Your task to perform on an android device: stop showing notifications on the lock screen Image 0: 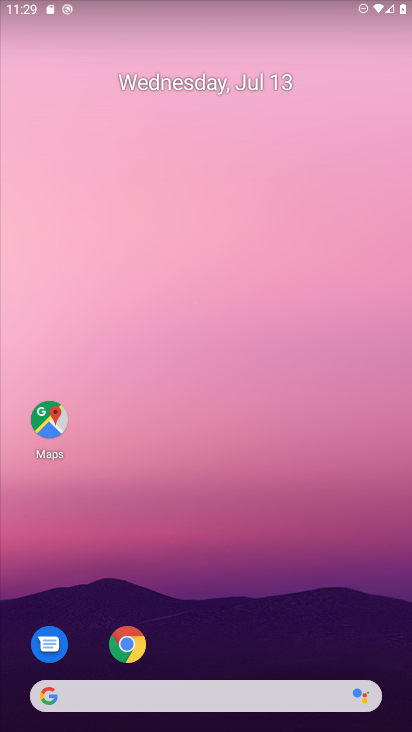
Step 0: drag from (215, 540) to (367, 79)
Your task to perform on an android device: stop showing notifications on the lock screen Image 1: 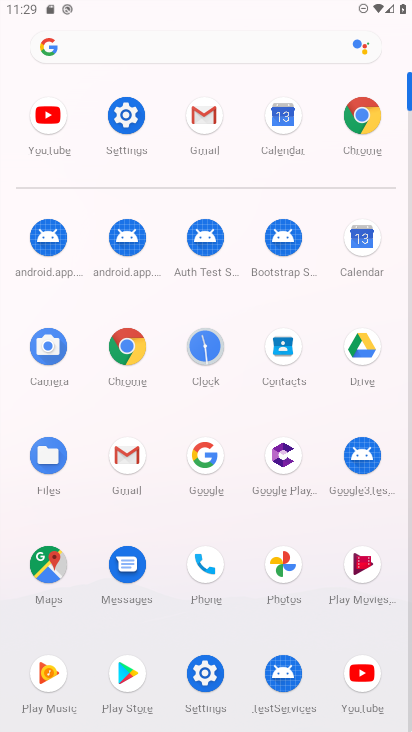
Step 1: click (119, 118)
Your task to perform on an android device: stop showing notifications on the lock screen Image 2: 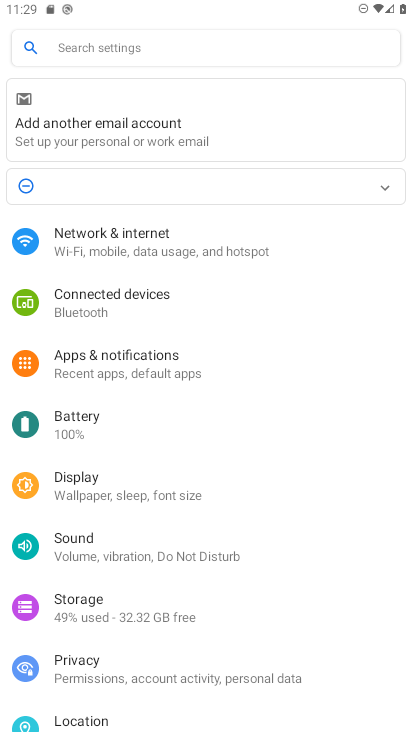
Step 2: click (121, 349)
Your task to perform on an android device: stop showing notifications on the lock screen Image 3: 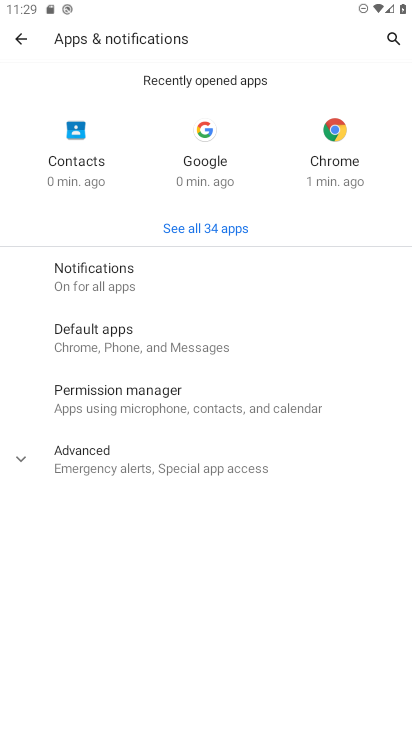
Step 3: click (100, 271)
Your task to perform on an android device: stop showing notifications on the lock screen Image 4: 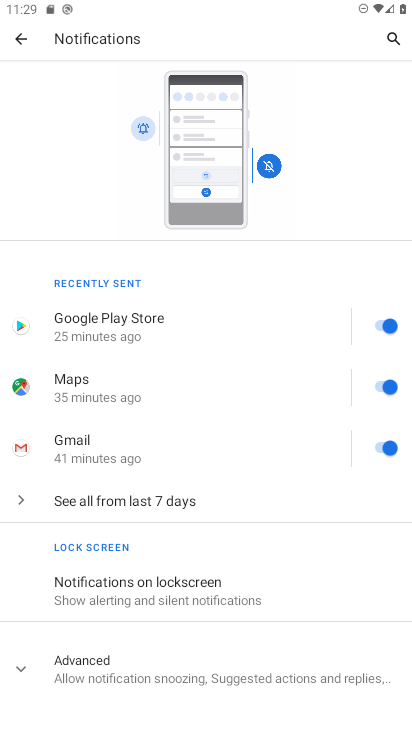
Step 4: click (104, 587)
Your task to perform on an android device: stop showing notifications on the lock screen Image 5: 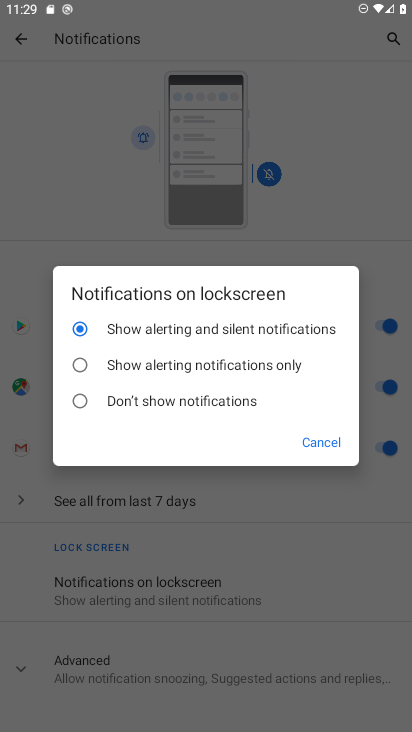
Step 5: click (81, 404)
Your task to perform on an android device: stop showing notifications on the lock screen Image 6: 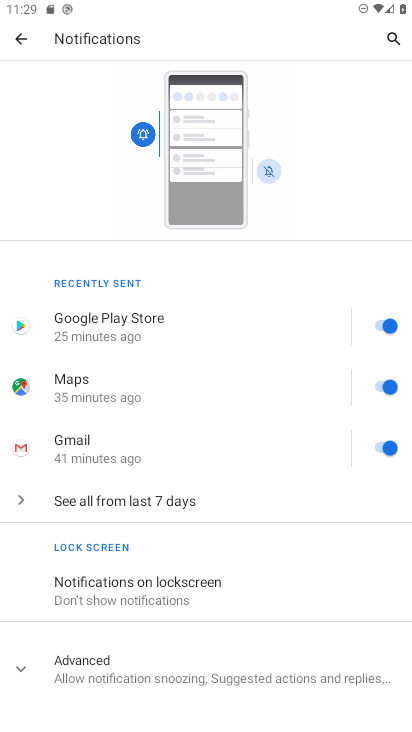
Step 6: task complete